Your task to perform on an android device: turn off smart reply in the gmail app Image 0: 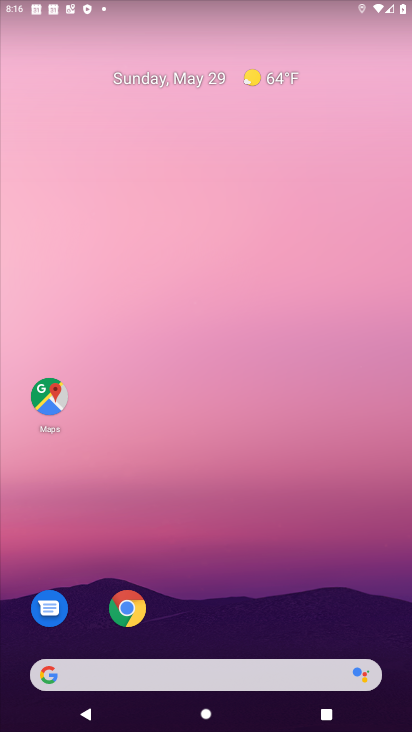
Step 0: drag from (241, 505) to (150, 171)
Your task to perform on an android device: turn off smart reply in the gmail app Image 1: 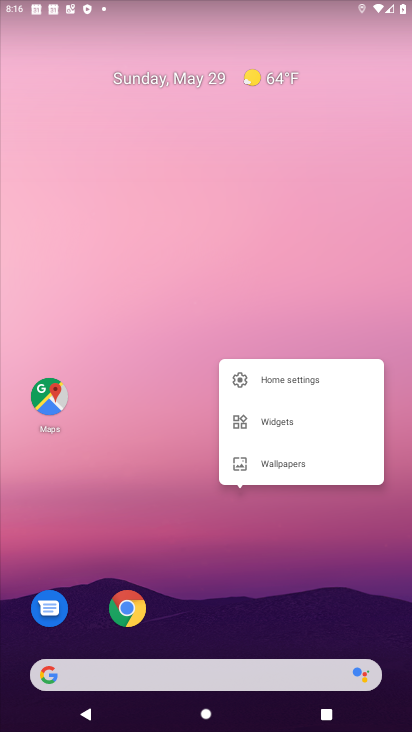
Step 1: click (199, 519)
Your task to perform on an android device: turn off smart reply in the gmail app Image 2: 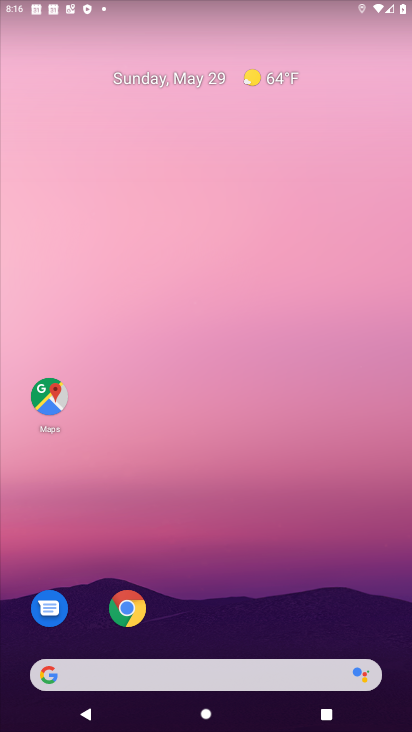
Step 2: drag from (243, 526) to (194, 25)
Your task to perform on an android device: turn off smart reply in the gmail app Image 3: 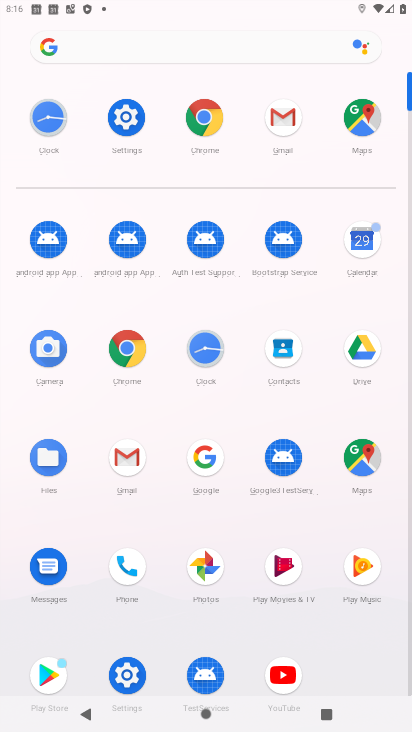
Step 3: click (289, 121)
Your task to perform on an android device: turn off smart reply in the gmail app Image 4: 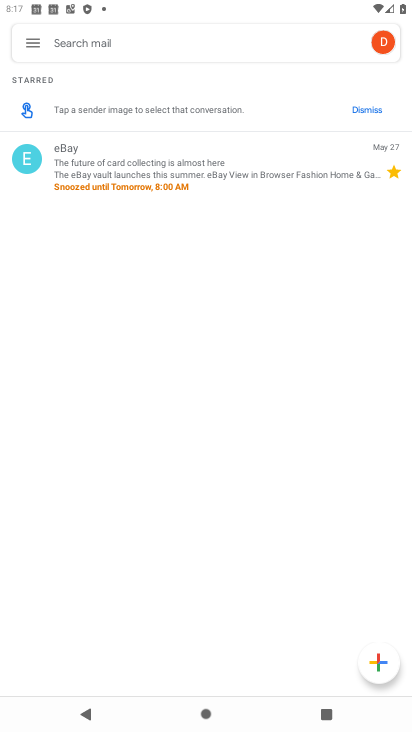
Step 4: click (37, 41)
Your task to perform on an android device: turn off smart reply in the gmail app Image 5: 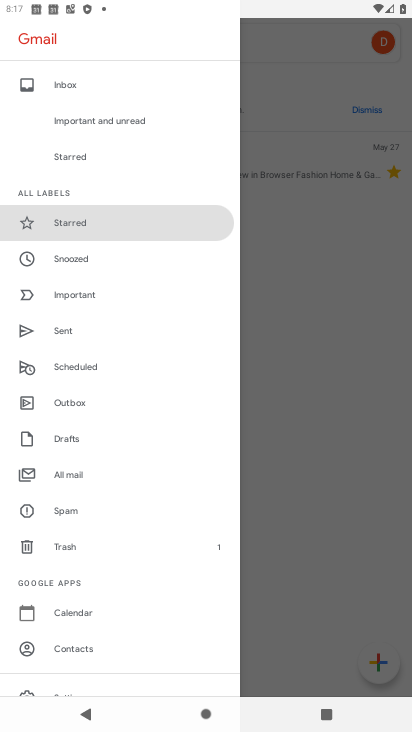
Step 5: drag from (112, 604) to (112, 221)
Your task to perform on an android device: turn off smart reply in the gmail app Image 6: 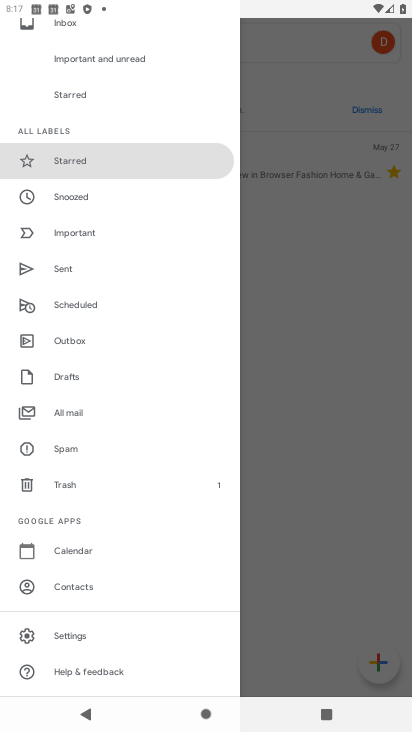
Step 6: click (78, 637)
Your task to perform on an android device: turn off smart reply in the gmail app Image 7: 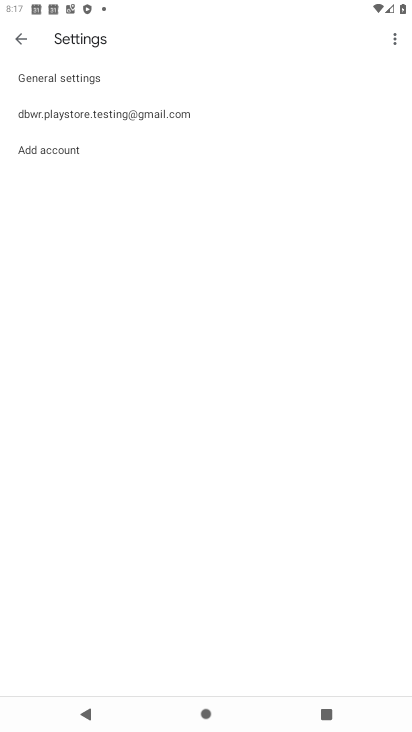
Step 7: click (95, 114)
Your task to perform on an android device: turn off smart reply in the gmail app Image 8: 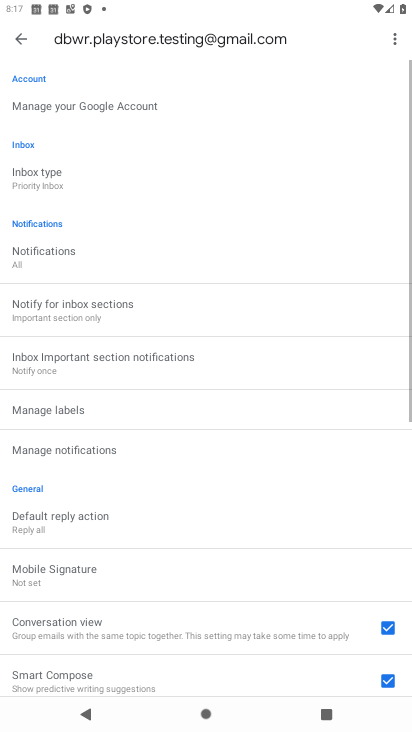
Step 8: drag from (207, 572) to (218, 87)
Your task to perform on an android device: turn off smart reply in the gmail app Image 9: 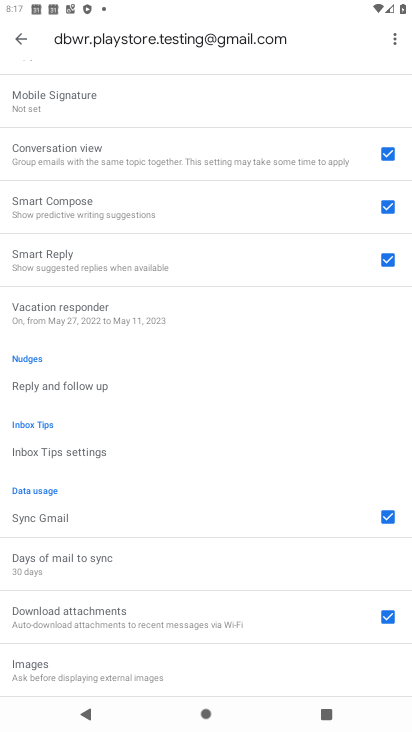
Step 9: click (384, 262)
Your task to perform on an android device: turn off smart reply in the gmail app Image 10: 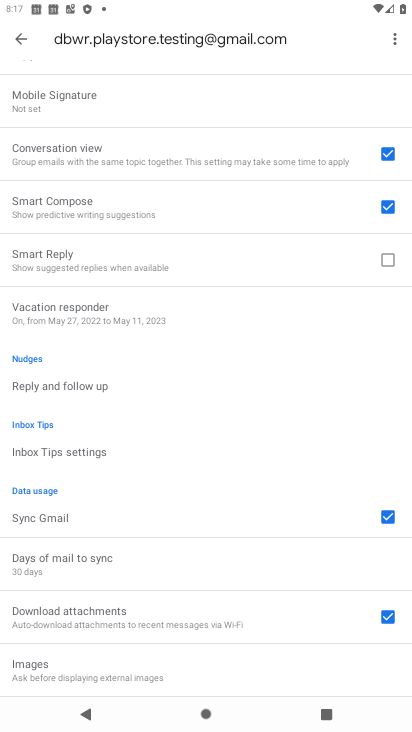
Step 10: task complete